Your task to perform on an android device: open chrome privacy settings Image 0: 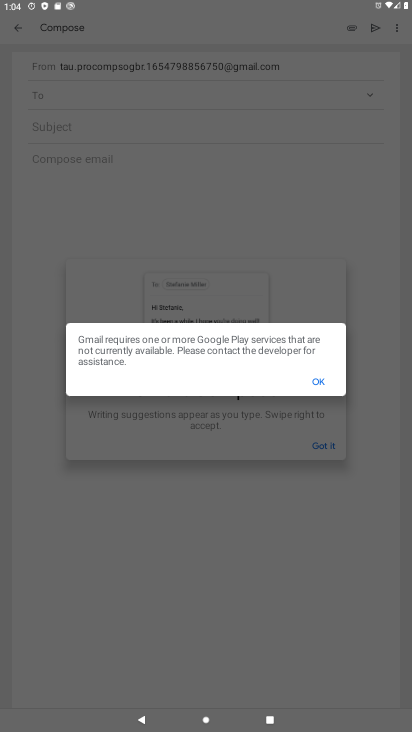
Step 0: press home button
Your task to perform on an android device: open chrome privacy settings Image 1: 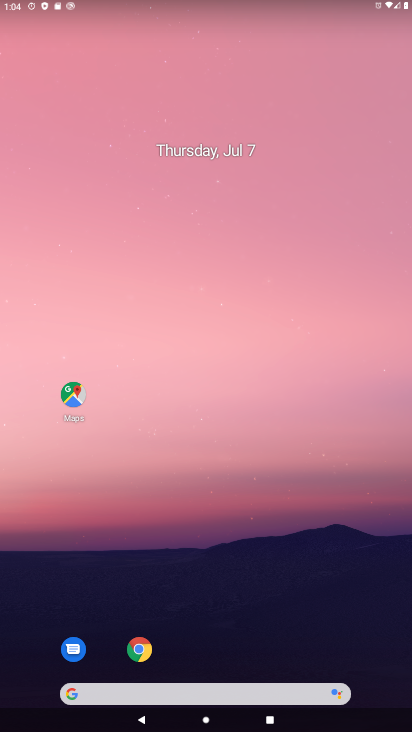
Step 1: drag from (211, 681) to (186, 222)
Your task to perform on an android device: open chrome privacy settings Image 2: 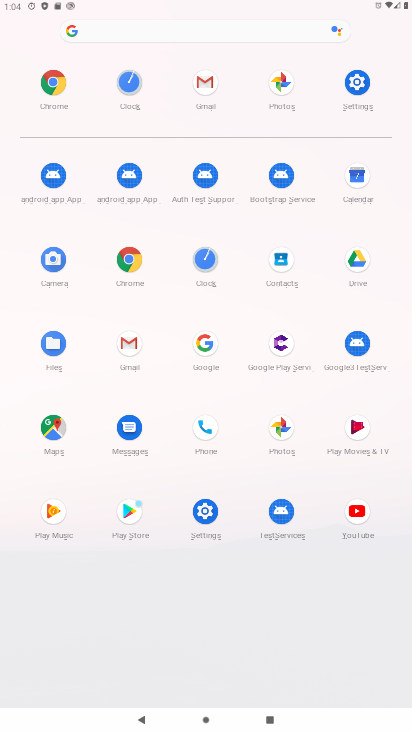
Step 2: click (126, 258)
Your task to perform on an android device: open chrome privacy settings Image 3: 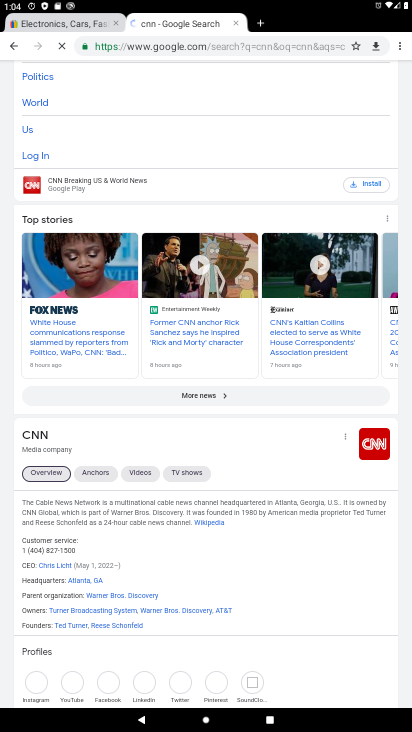
Step 3: click (396, 45)
Your task to perform on an android device: open chrome privacy settings Image 4: 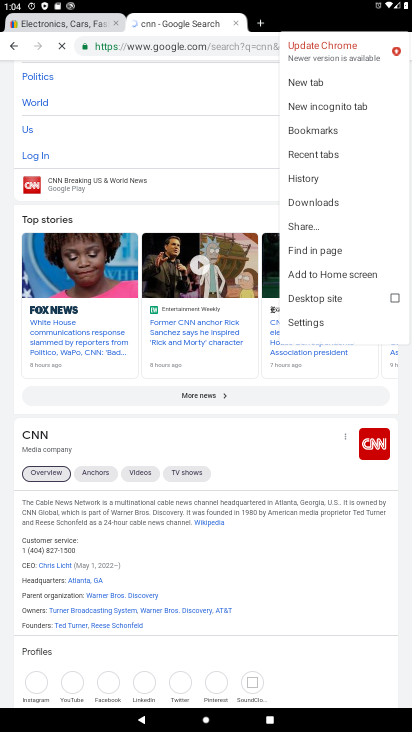
Step 4: click (298, 321)
Your task to perform on an android device: open chrome privacy settings Image 5: 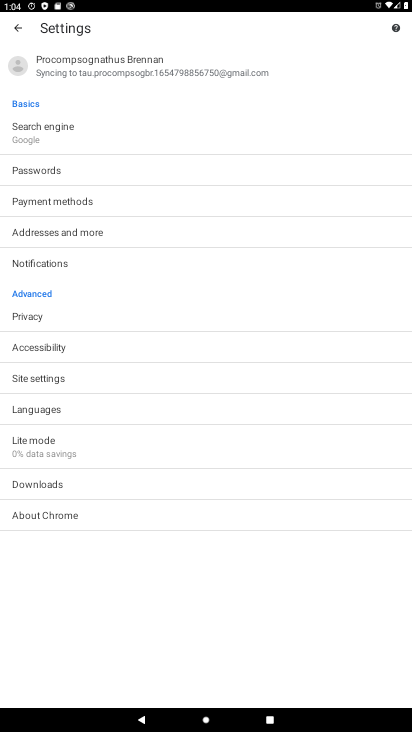
Step 5: click (37, 314)
Your task to perform on an android device: open chrome privacy settings Image 6: 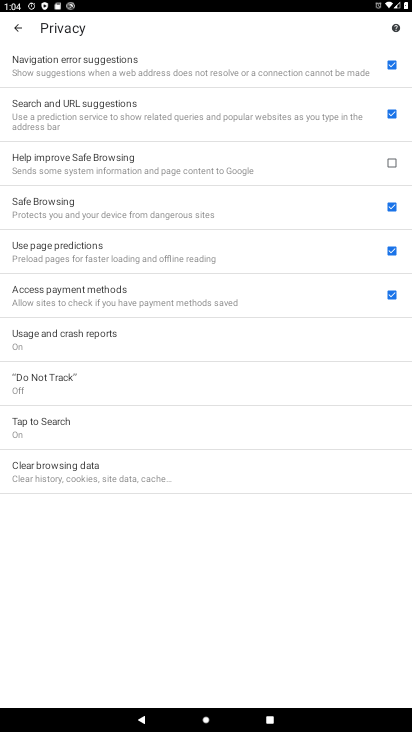
Step 6: task complete